Your task to perform on an android device: Is it going to rain today? Image 0: 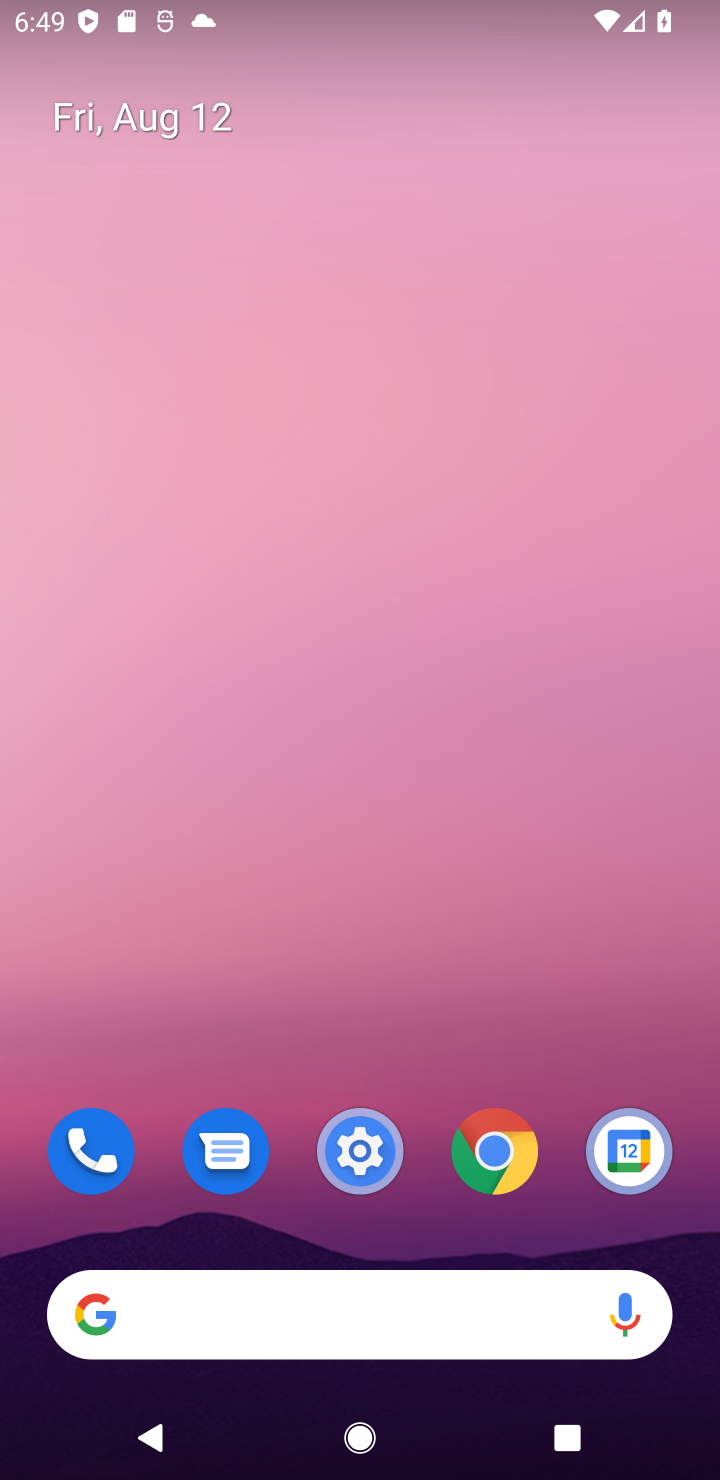
Step 0: drag from (487, 917) to (365, 0)
Your task to perform on an android device: Is it going to rain today? Image 1: 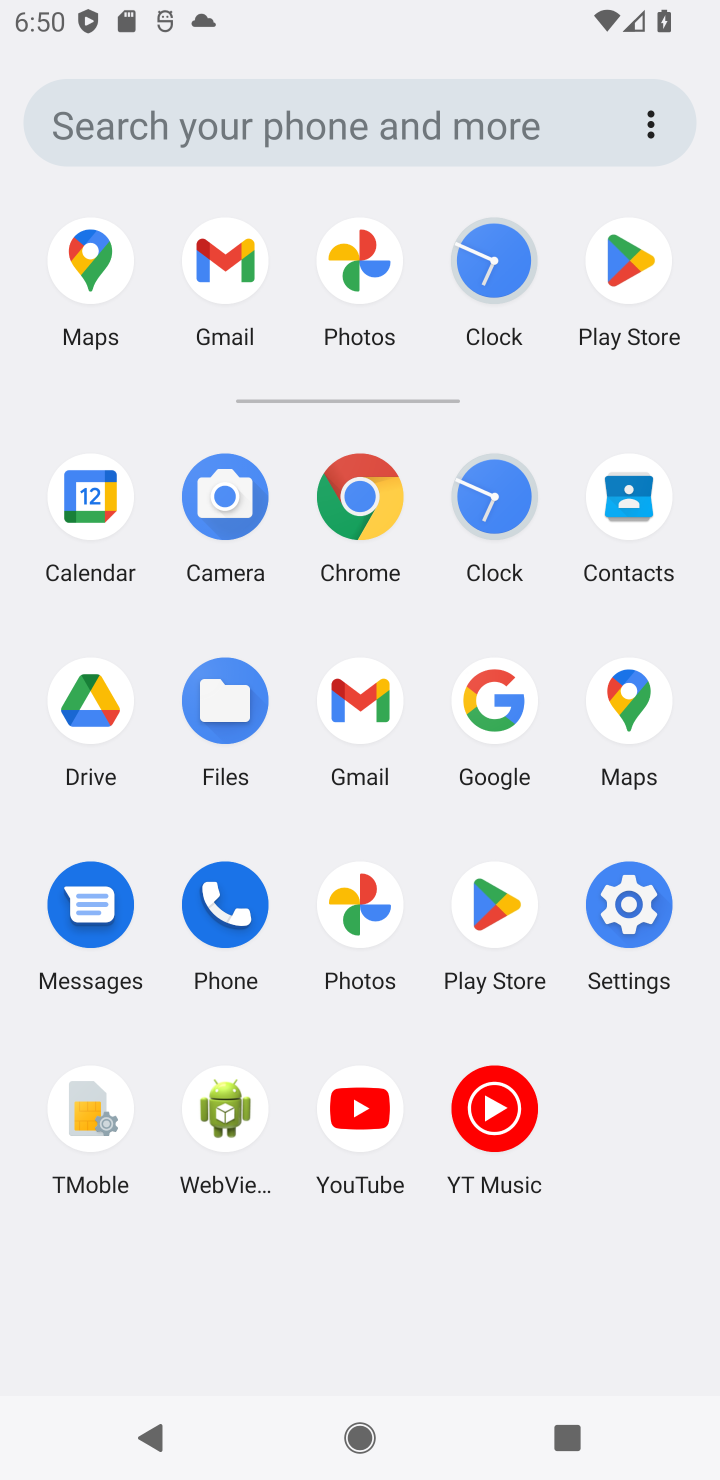
Step 1: click (358, 499)
Your task to perform on an android device: Is it going to rain today? Image 2: 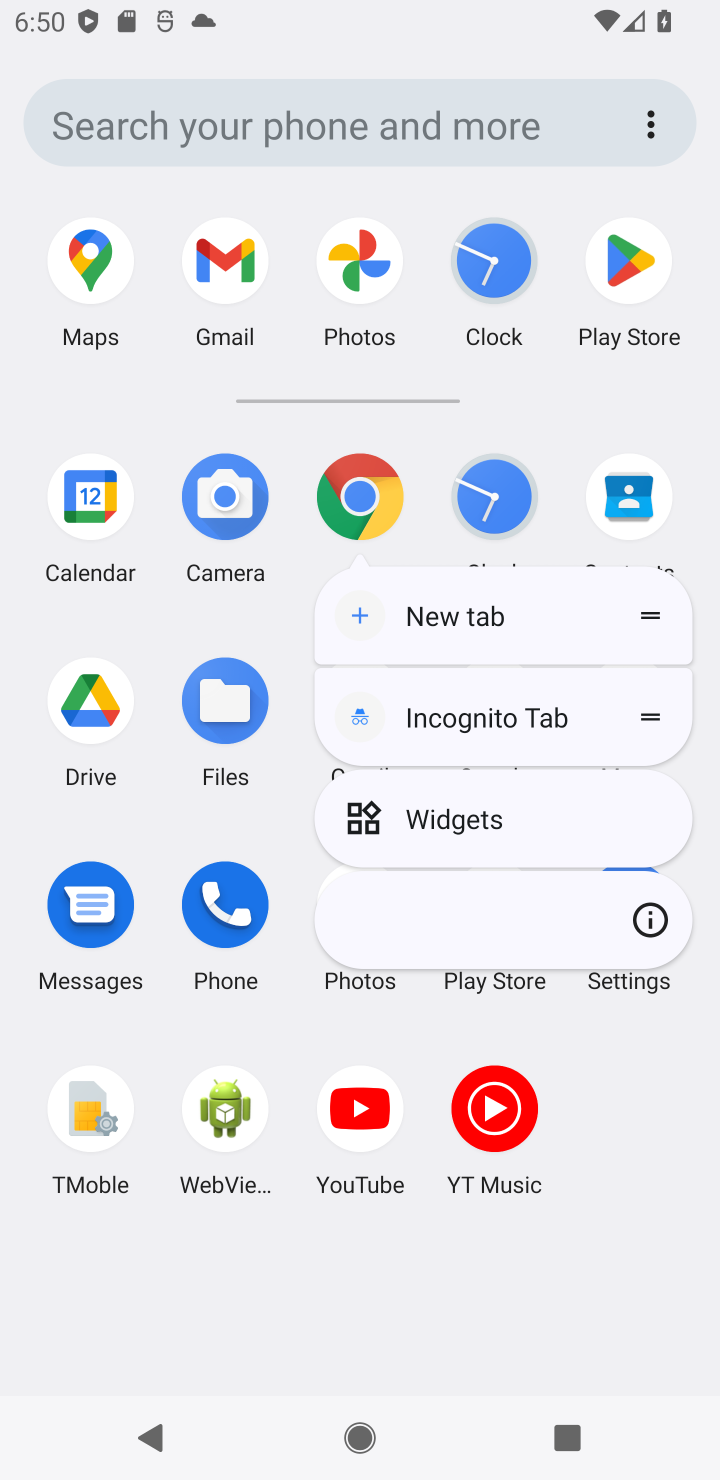
Step 2: click (357, 495)
Your task to perform on an android device: Is it going to rain today? Image 3: 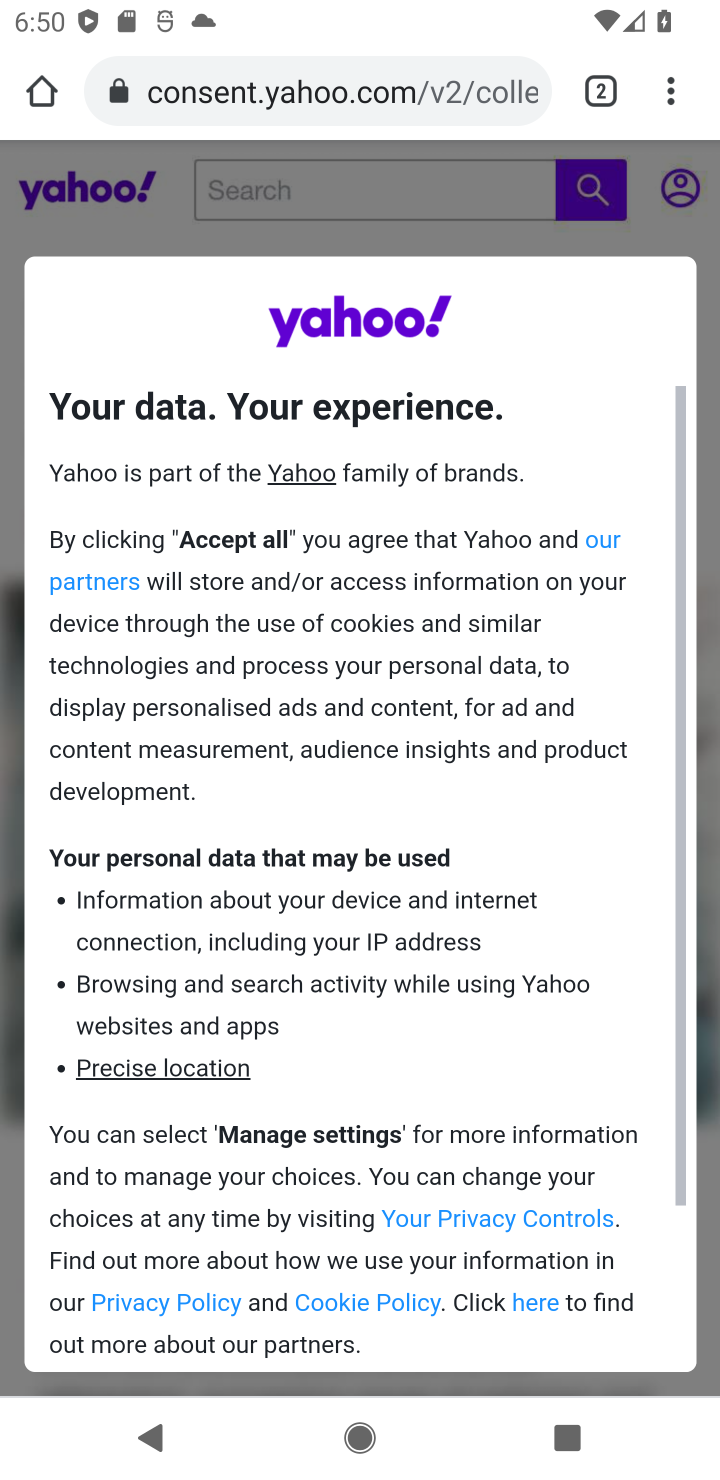
Step 3: click (333, 86)
Your task to perform on an android device: Is it going to rain today? Image 4: 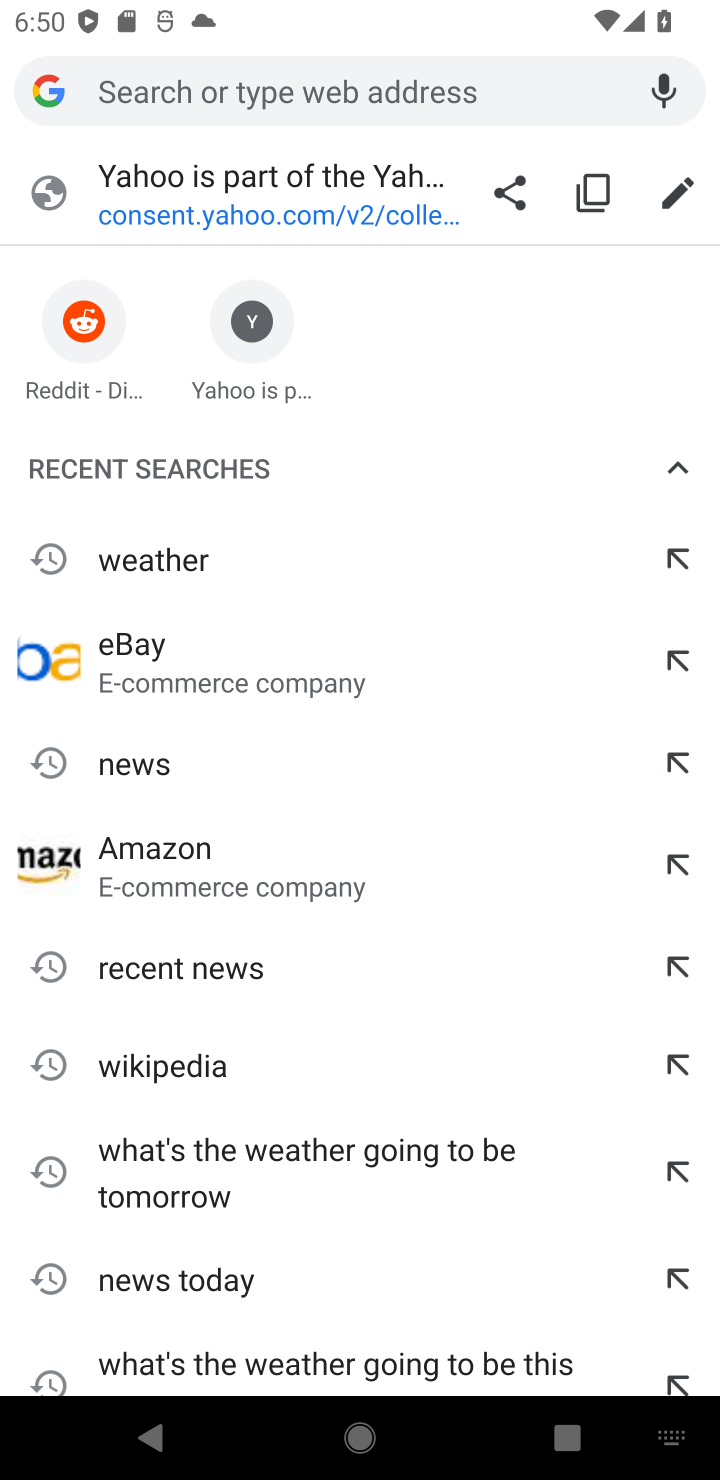
Step 4: type "weather"
Your task to perform on an android device: Is it going to rain today? Image 5: 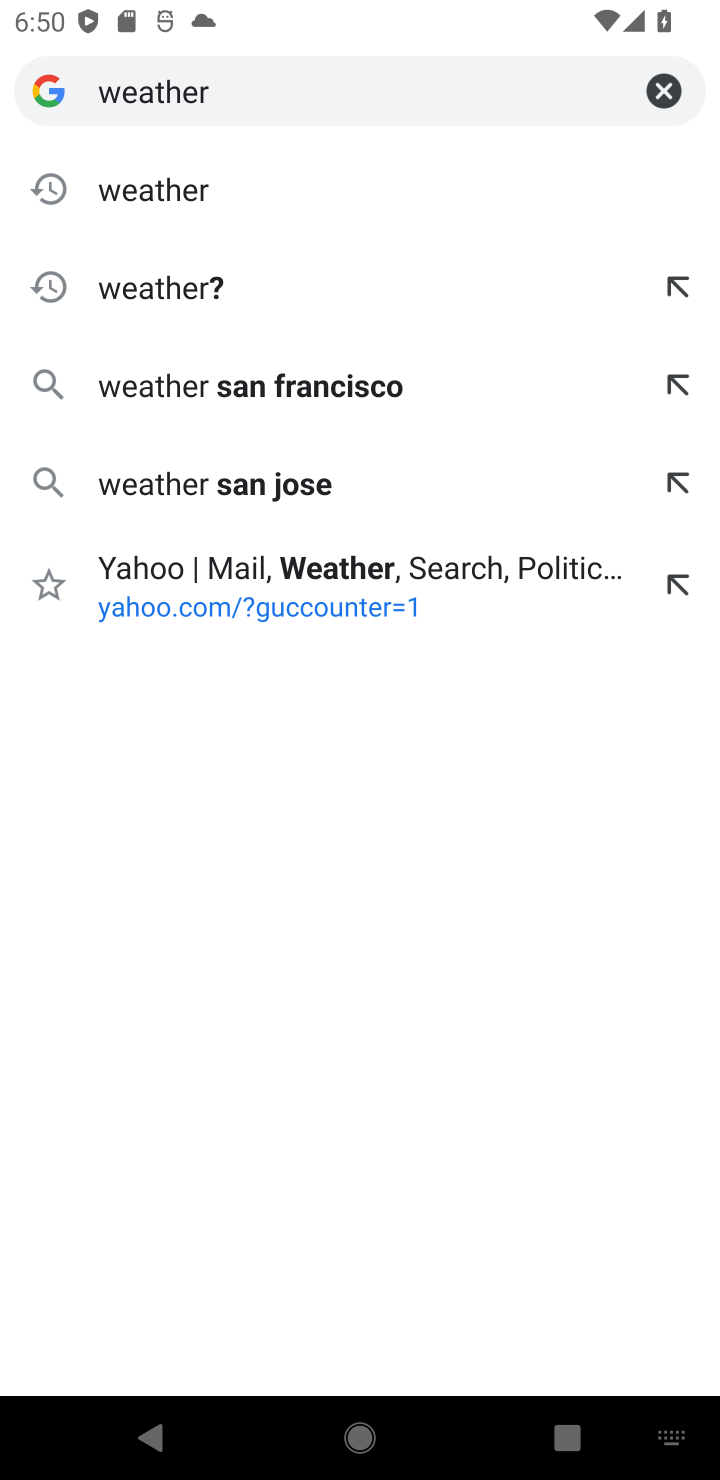
Step 5: click (123, 194)
Your task to perform on an android device: Is it going to rain today? Image 6: 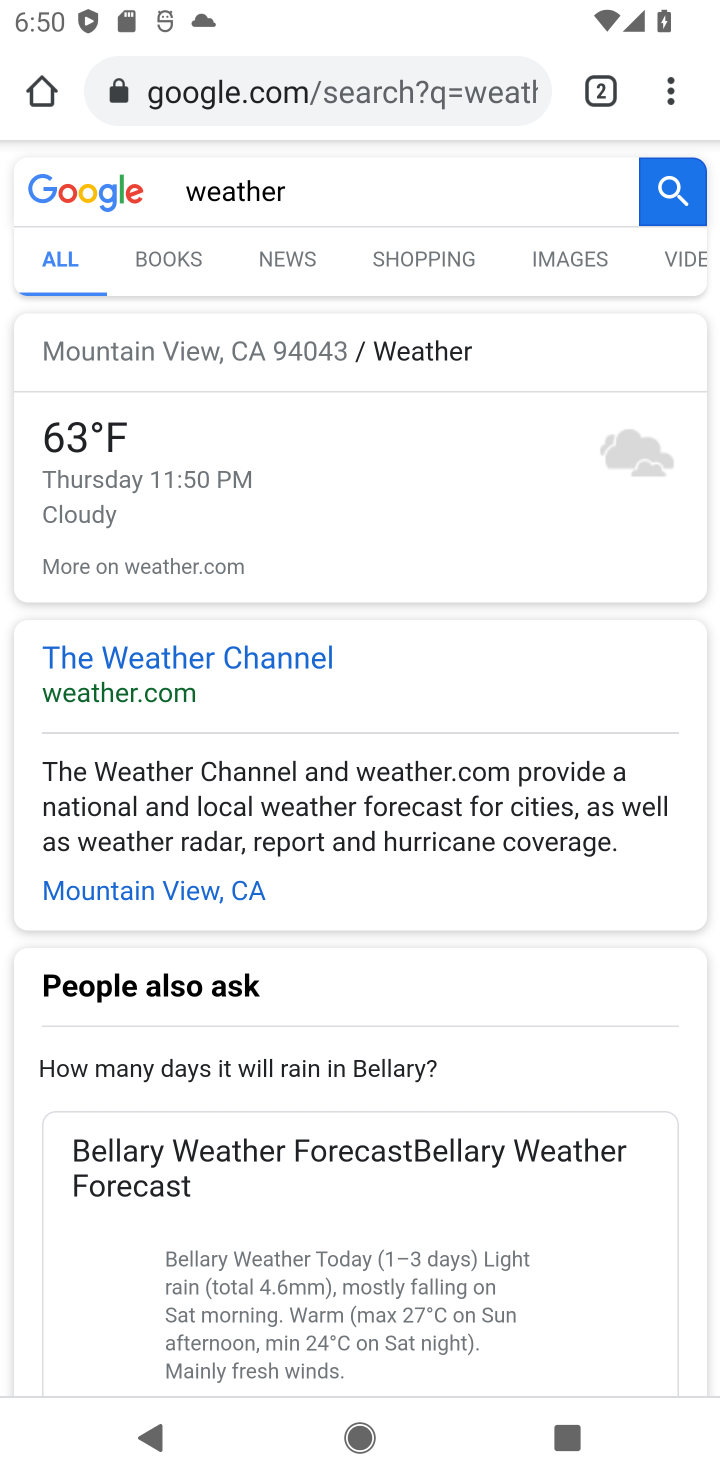
Step 6: task complete